Your task to perform on an android device: Open Android settings Image 0: 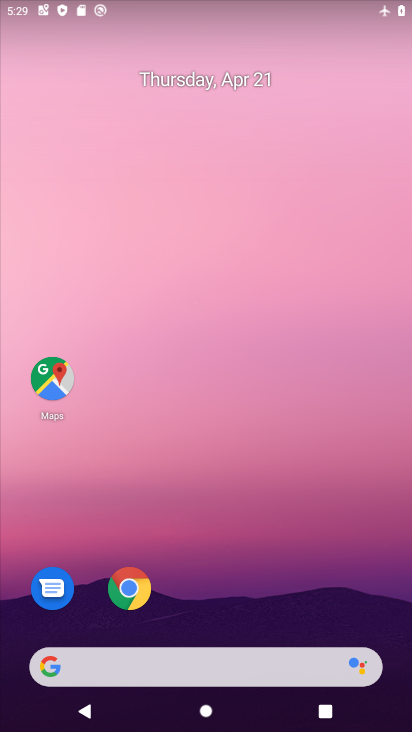
Step 0: drag from (256, 633) to (69, 212)
Your task to perform on an android device: Open Android settings Image 1: 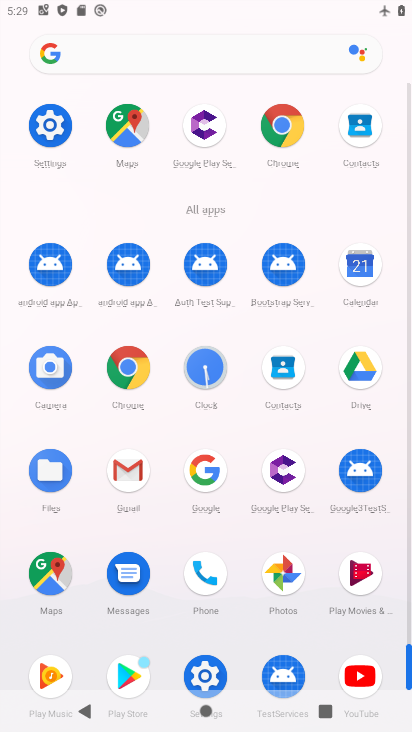
Step 1: click (48, 127)
Your task to perform on an android device: Open Android settings Image 2: 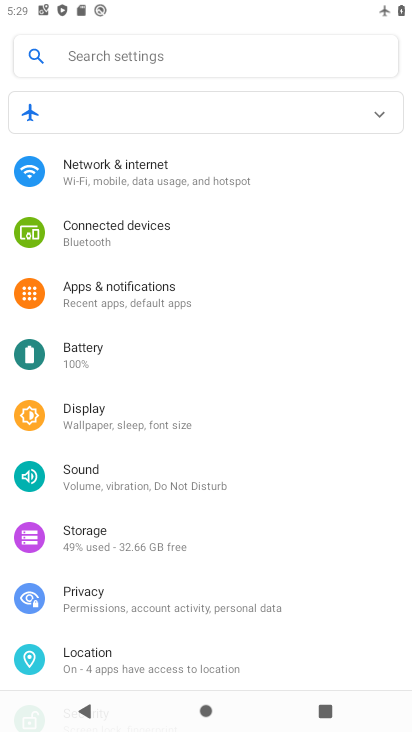
Step 2: drag from (132, 340) to (4, 562)
Your task to perform on an android device: Open Android settings Image 3: 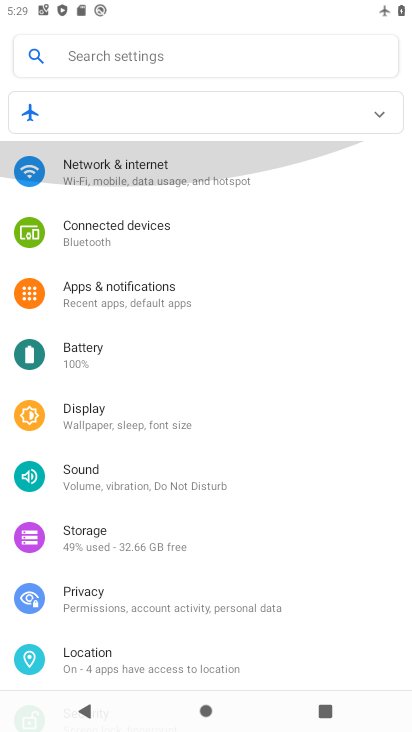
Step 3: drag from (120, 631) to (146, 226)
Your task to perform on an android device: Open Android settings Image 4: 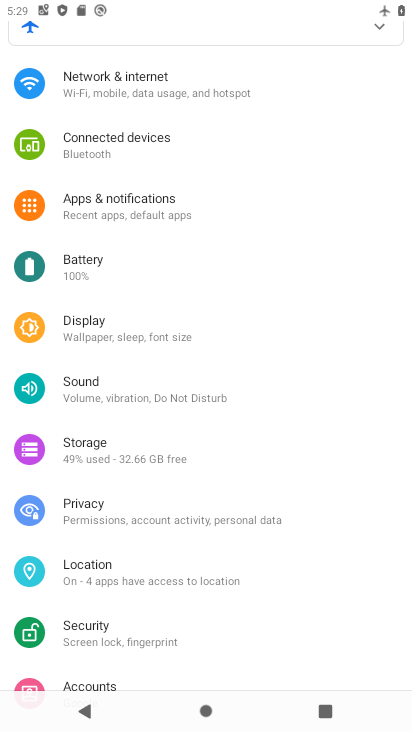
Step 4: drag from (117, 659) to (157, 284)
Your task to perform on an android device: Open Android settings Image 5: 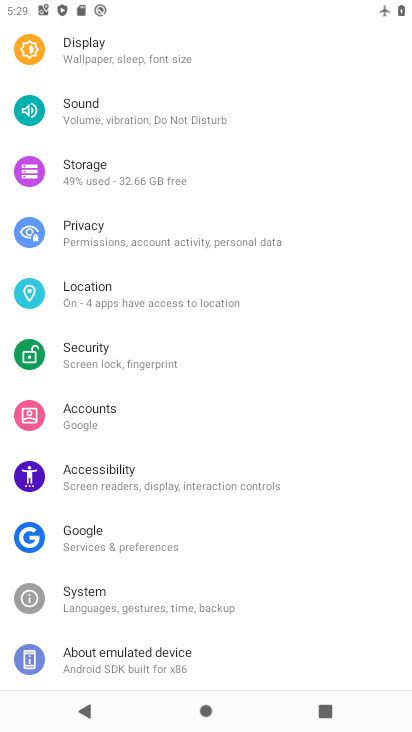
Step 5: click (110, 672)
Your task to perform on an android device: Open Android settings Image 6: 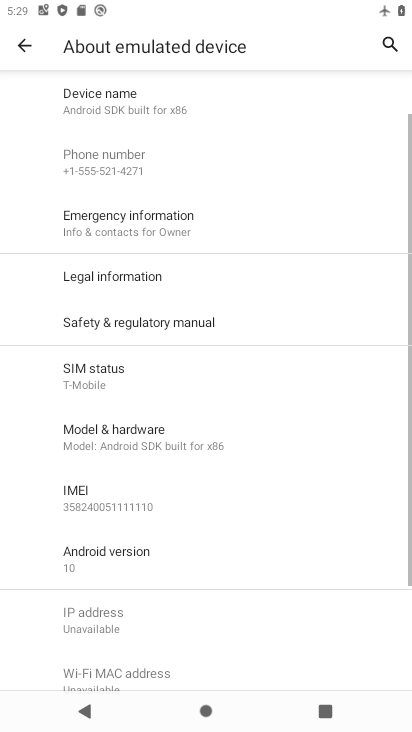
Step 6: drag from (183, 634) to (205, 360)
Your task to perform on an android device: Open Android settings Image 7: 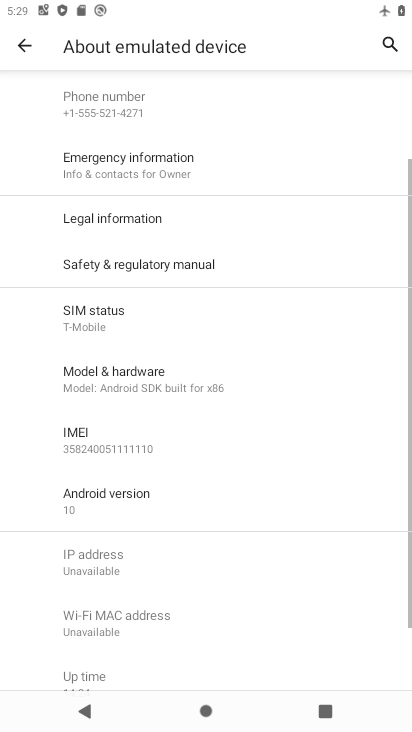
Step 7: drag from (171, 654) to (192, 377)
Your task to perform on an android device: Open Android settings Image 8: 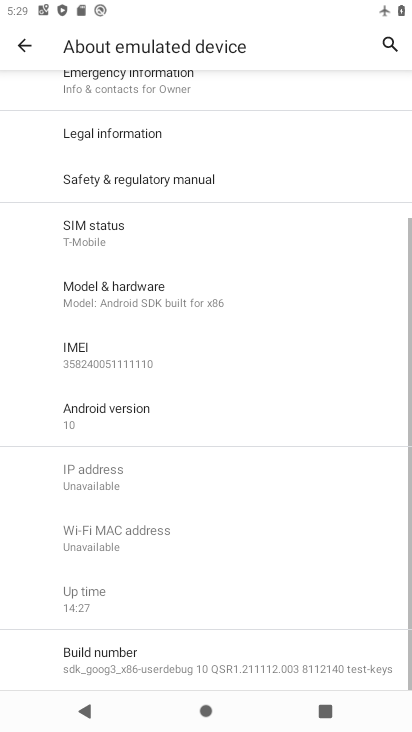
Step 8: click (98, 420)
Your task to perform on an android device: Open Android settings Image 9: 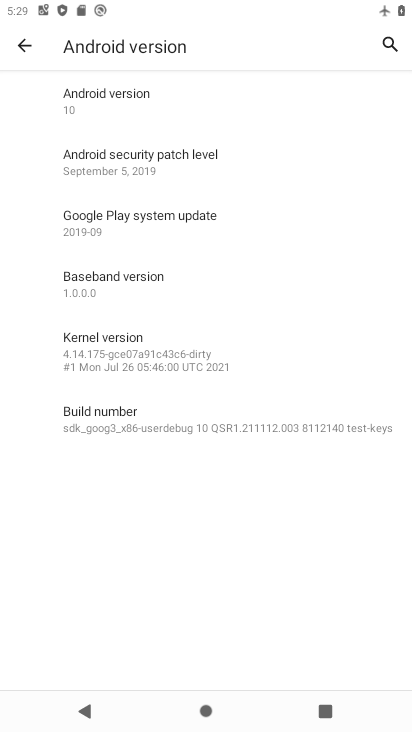
Step 9: task complete